Your task to perform on an android device: turn pop-ups off in chrome Image 0: 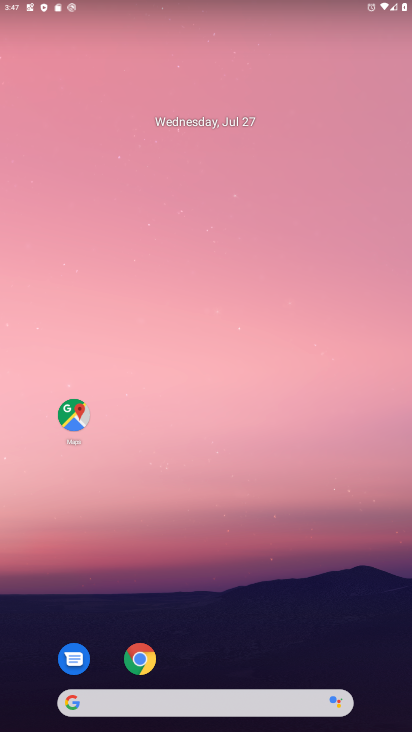
Step 0: click (145, 665)
Your task to perform on an android device: turn pop-ups off in chrome Image 1: 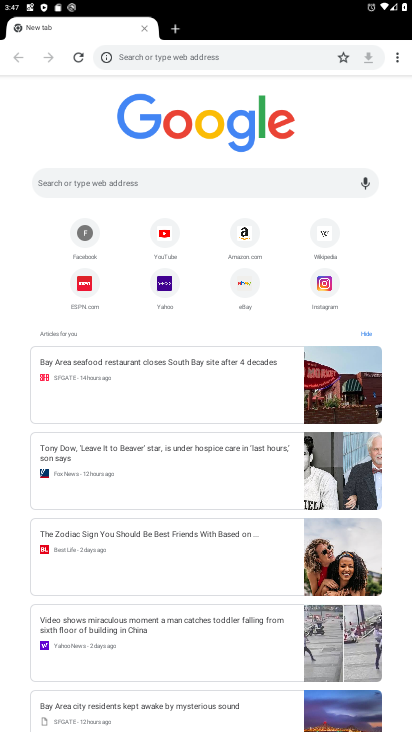
Step 1: click (396, 53)
Your task to perform on an android device: turn pop-ups off in chrome Image 2: 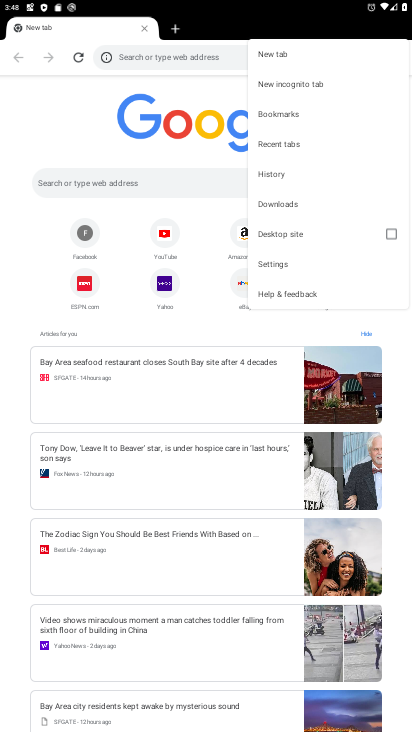
Step 2: click (285, 254)
Your task to perform on an android device: turn pop-ups off in chrome Image 3: 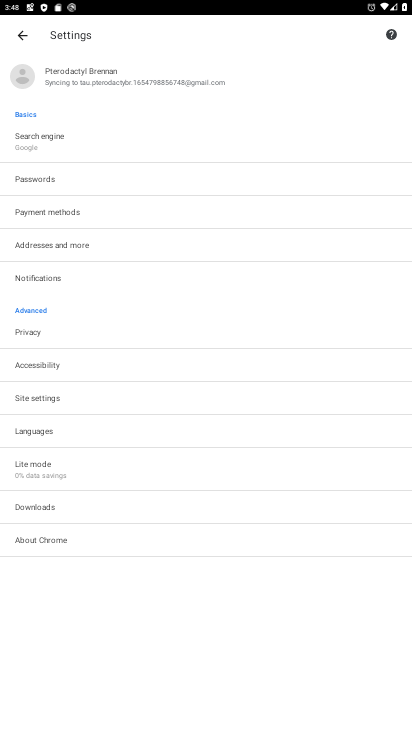
Step 3: click (71, 399)
Your task to perform on an android device: turn pop-ups off in chrome Image 4: 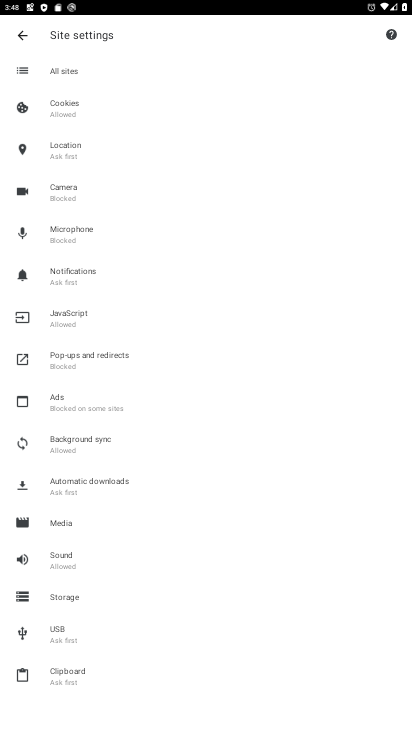
Step 4: click (74, 366)
Your task to perform on an android device: turn pop-ups off in chrome Image 5: 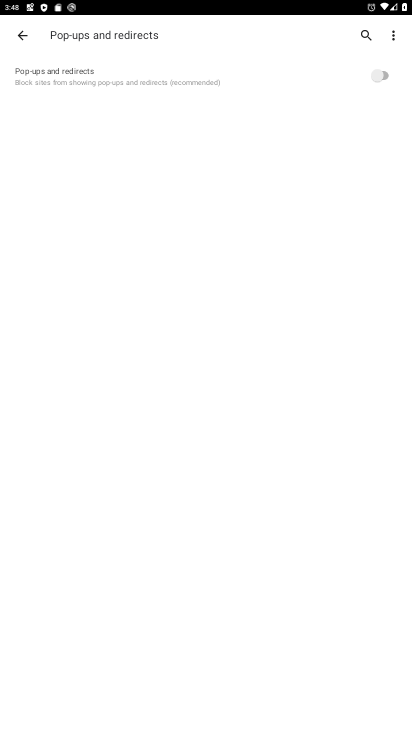
Step 5: task complete